Your task to perform on an android device: What's on my calendar today? Image 0: 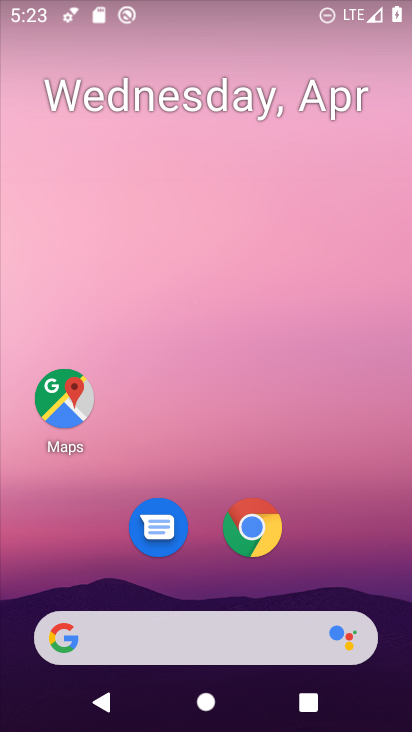
Step 0: drag from (358, 489) to (332, 13)
Your task to perform on an android device: What's on my calendar today? Image 1: 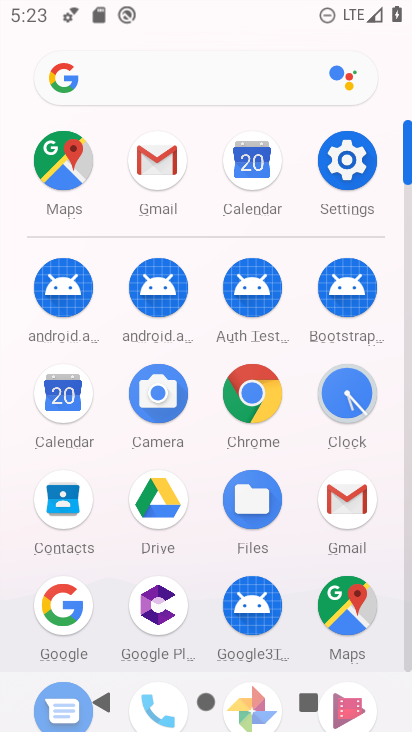
Step 1: click (64, 397)
Your task to perform on an android device: What's on my calendar today? Image 2: 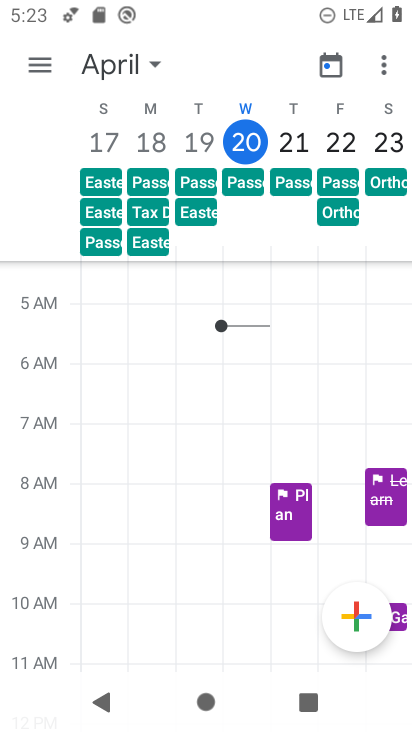
Step 2: click (149, 67)
Your task to perform on an android device: What's on my calendar today? Image 3: 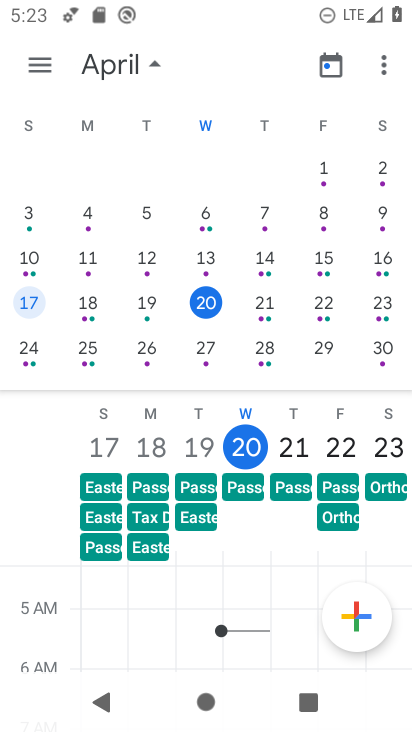
Step 3: click (207, 307)
Your task to perform on an android device: What's on my calendar today? Image 4: 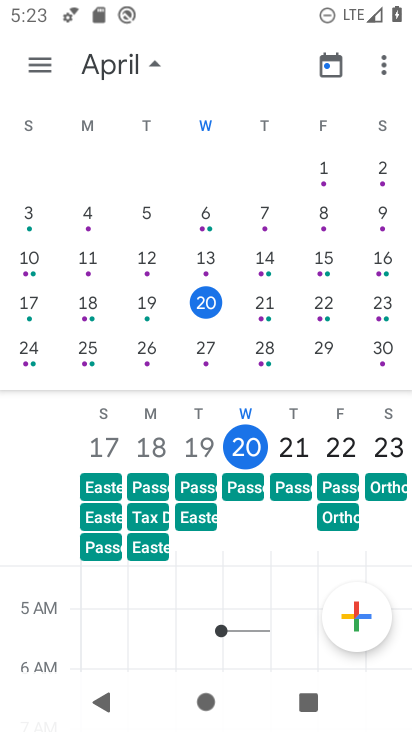
Step 4: drag from (235, 548) to (236, 188)
Your task to perform on an android device: What's on my calendar today? Image 5: 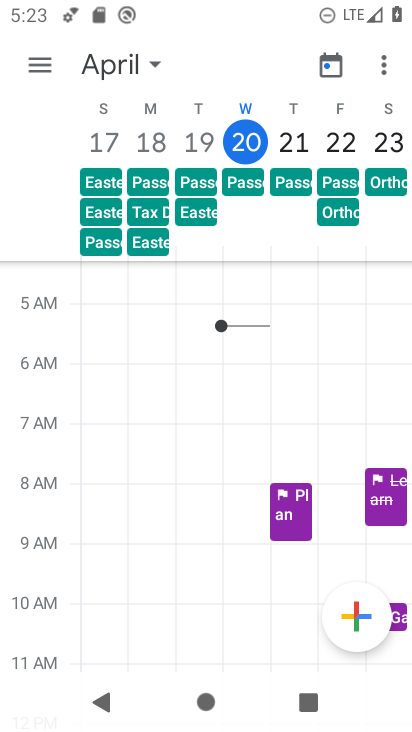
Step 5: drag from (235, 482) to (235, 161)
Your task to perform on an android device: What's on my calendar today? Image 6: 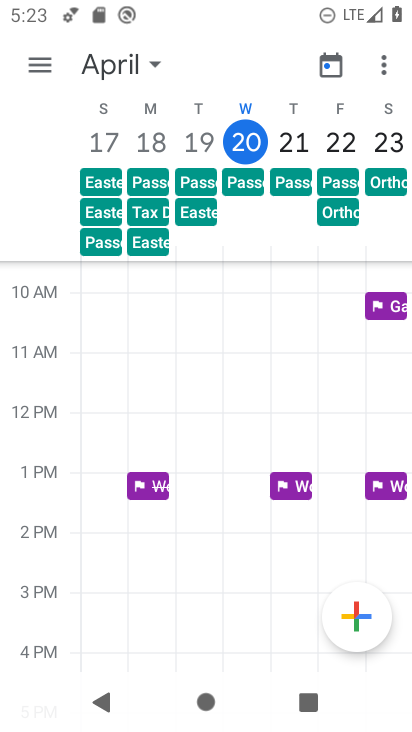
Step 6: drag from (240, 491) to (235, 172)
Your task to perform on an android device: What's on my calendar today? Image 7: 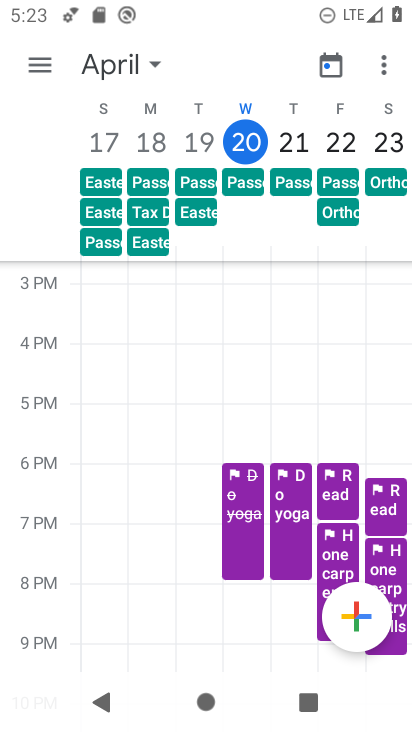
Step 7: click (241, 529)
Your task to perform on an android device: What's on my calendar today? Image 8: 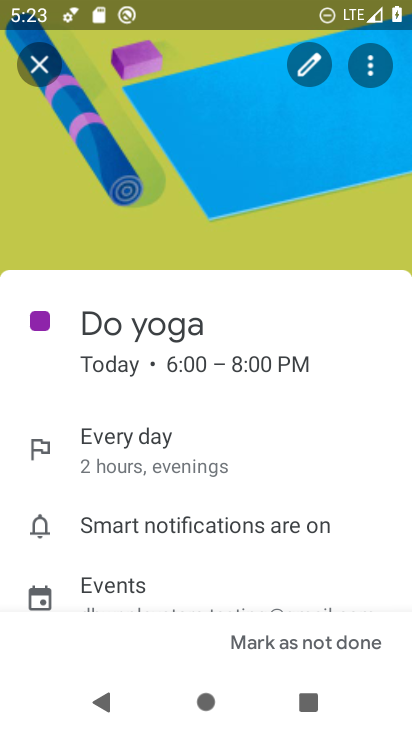
Step 8: task complete